Your task to perform on an android device: Search for "lg ultragear" on newegg.com, select the first entry, add it to the cart, then select checkout. Image 0: 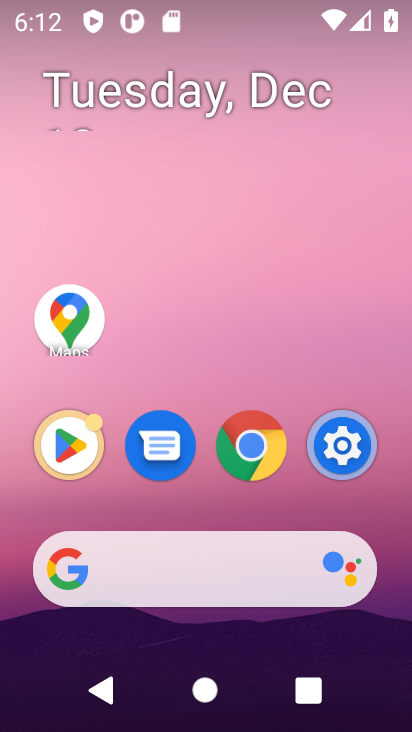
Step 0: click (161, 578)
Your task to perform on an android device: Search for "lg ultragear" on newegg.com, select the first entry, add it to the cart, then select checkout. Image 1: 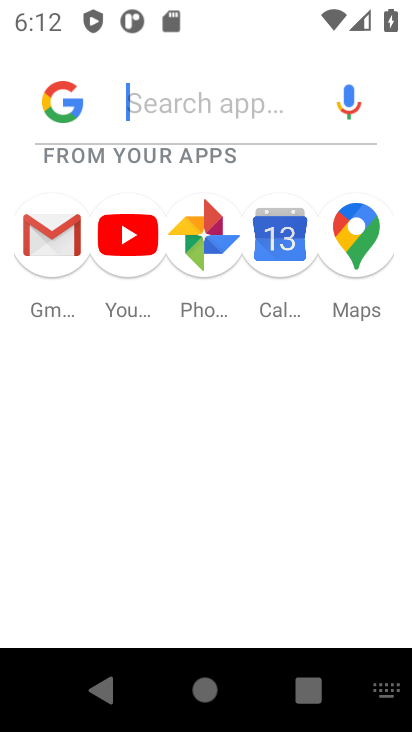
Step 1: type "newegg.com"
Your task to perform on an android device: Search for "lg ultragear" on newegg.com, select the first entry, add it to the cart, then select checkout. Image 2: 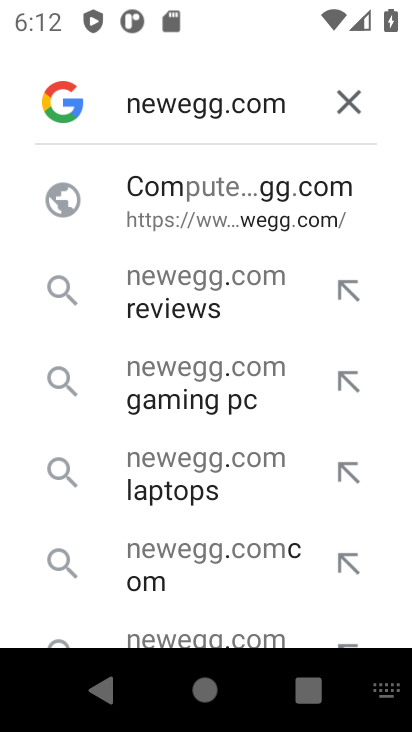
Step 2: click (293, 204)
Your task to perform on an android device: Search for "lg ultragear" on newegg.com, select the first entry, add it to the cart, then select checkout. Image 3: 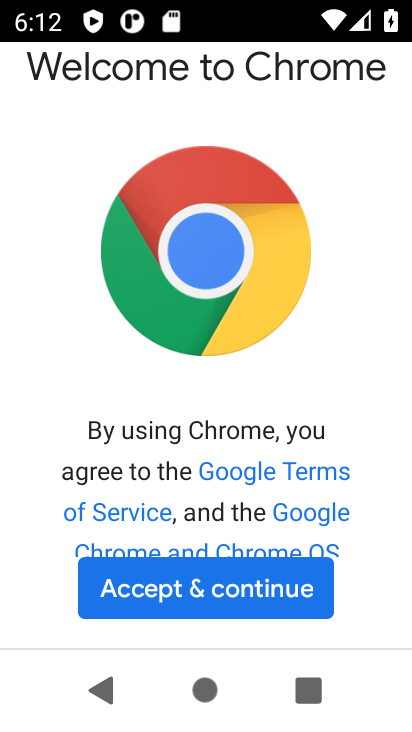
Step 3: click (240, 592)
Your task to perform on an android device: Search for "lg ultragear" on newegg.com, select the first entry, add it to the cart, then select checkout. Image 4: 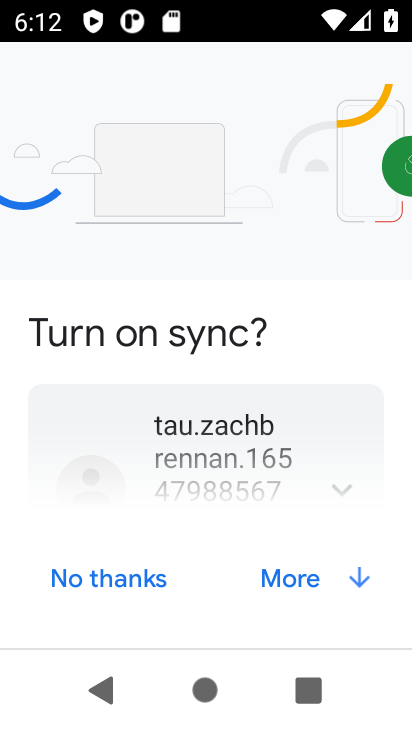
Step 4: click (161, 581)
Your task to perform on an android device: Search for "lg ultragear" on newegg.com, select the first entry, add it to the cart, then select checkout. Image 5: 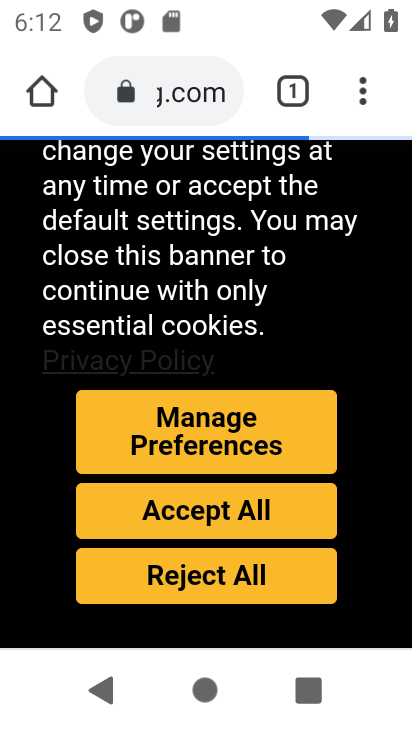
Step 5: click (175, 247)
Your task to perform on an android device: Search for "lg ultragear" on newegg.com, select the first entry, add it to the cart, then select checkout. Image 6: 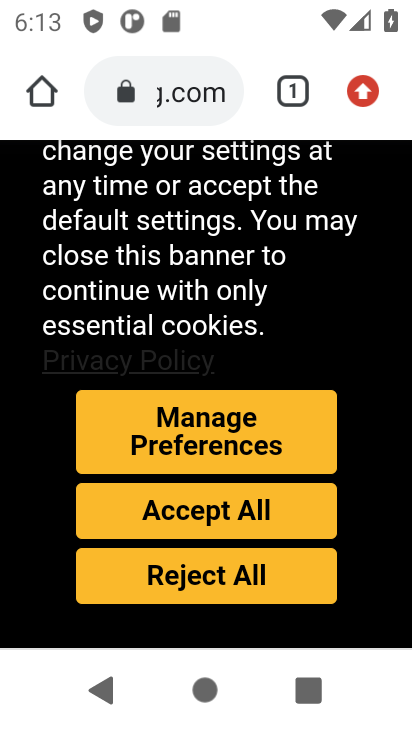
Step 6: click (229, 500)
Your task to perform on an android device: Search for "lg ultragear" on newegg.com, select the first entry, add it to the cart, then select checkout. Image 7: 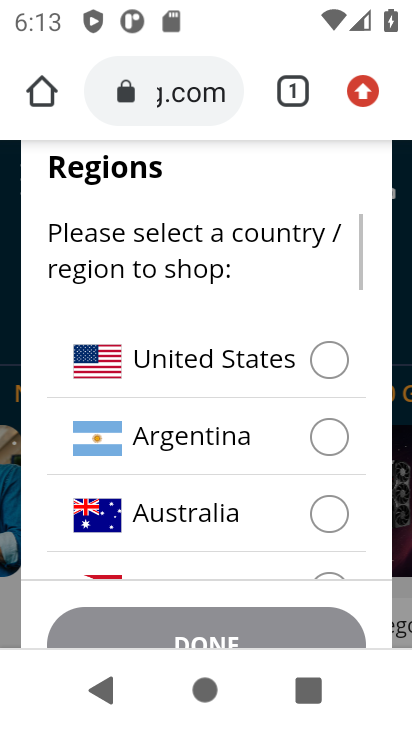
Step 7: click (324, 354)
Your task to perform on an android device: Search for "lg ultragear" on newegg.com, select the first entry, add it to the cart, then select checkout. Image 8: 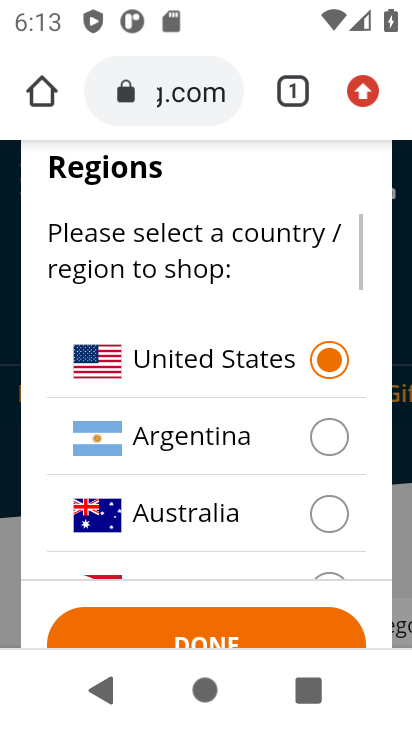
Step 8: click (219, 637)
Your task to perform on an android device: Search for "lg ultragear" on newegg.com, select the first entry, add it to the cart, then select checkout. Image 9: 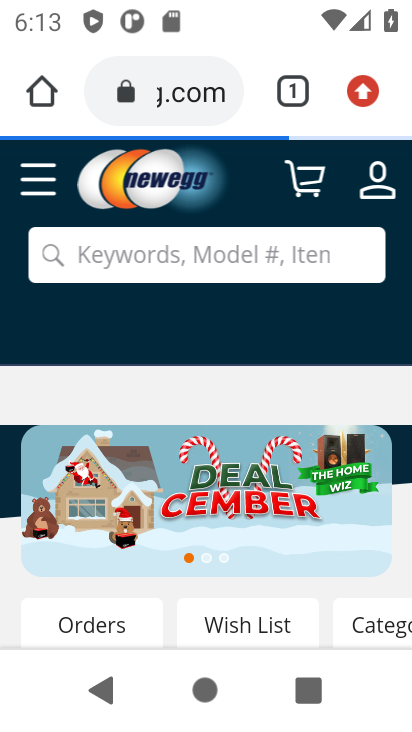
Step 9: click (227, 254)
Your task to perform on an android device: Search for "lg ultragear" on newegg.com, select the first entry, add it to the cart, then select checkout. Image 10: 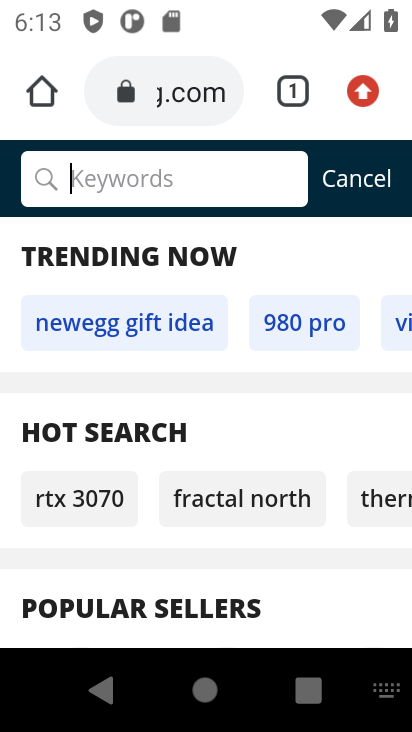
Step 10: click (252, 257)
Your task to perform on an android device: Search for "lg ultragear" on newegg.com, select the first entry, add it to the cart, then select checkout. Image 11: 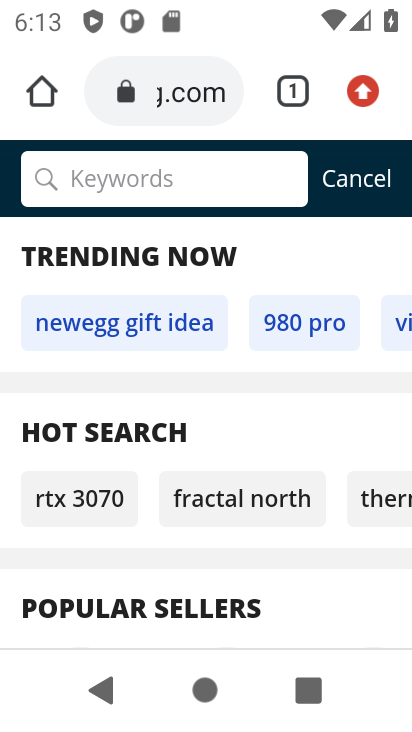
Step 11: type "lg ultragear"
Your task to perform on an android device: Search for "lg ultragear" on newegg.com, select the first entry, add it to the cart, then select checkout. Image 12: 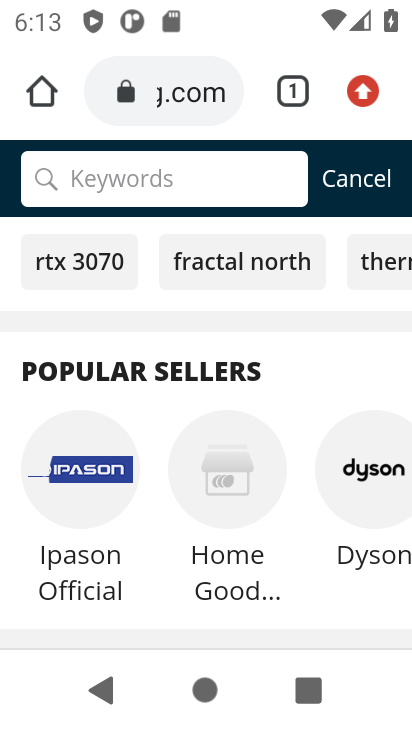
Step 12: click (131, 199)
Your task to perform on an android device: Search for "lg ultragear" on newegg.com, select the first entry, add it to the cart, then select checkout. Image 13: 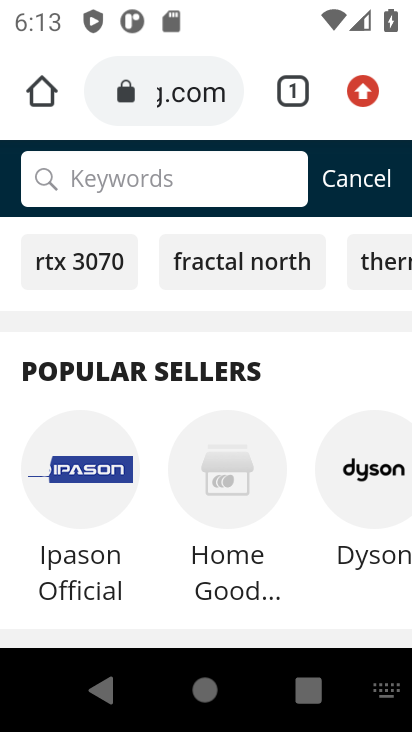
Step 13: type "lg ultragear"
Your task to perform on an android device: Search for "lg ultragear" on newegg.com, select the first entry, add it to the cart, then select checkout. Image 14: 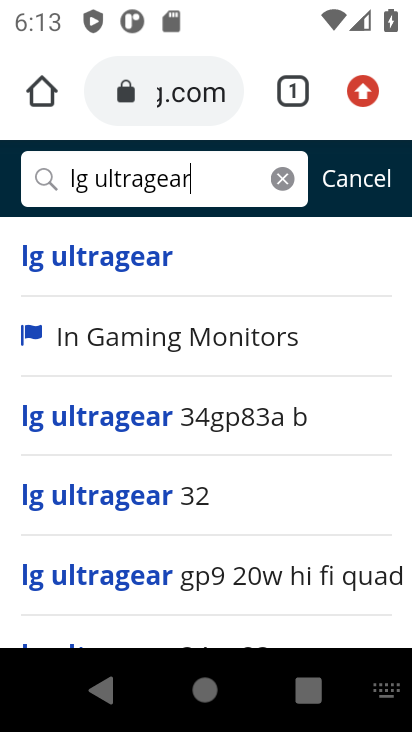
Step 14: click (143, 258)
Your task to perform on an android device: Search for "lg ultragear" on newegg.com, select the first entry, add it to the cart, then select checkout. Image 15: 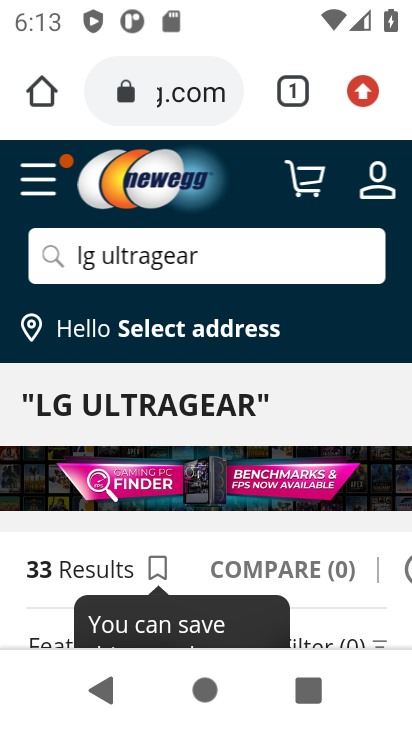
Step 15: drag from (164, 499) to (173, 199)
Your task to perform on an android device: Search for "lg ultragear" on newegg.com, select the first entry, add it to the cart, then select checkout. Image 16: 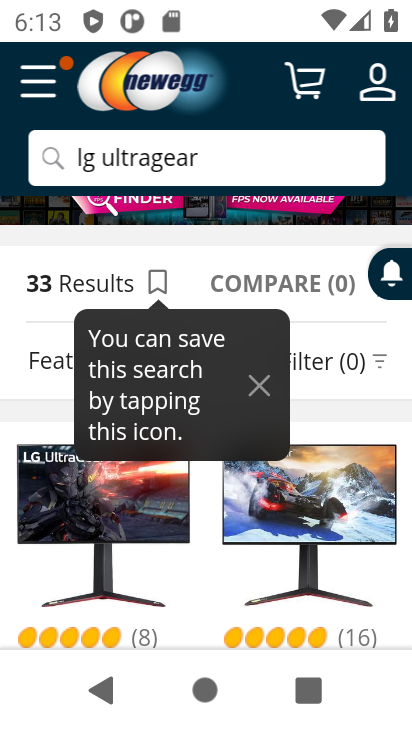
Step 16: click (90, 538)
Your task to perform on an android device: Search for "lg ultragear" on newegg.com, select the first entry, add it to the cart, then select checkout. Image 17: 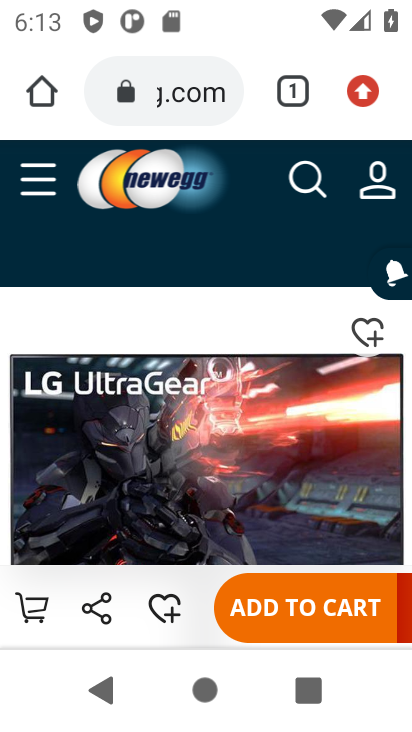
Step 17: click (276, 617)
Your task to perform on an android device: Search for "lg ultragear" on newegg.com, select the first entry, add it to the cart, then select checkout. Image 18: 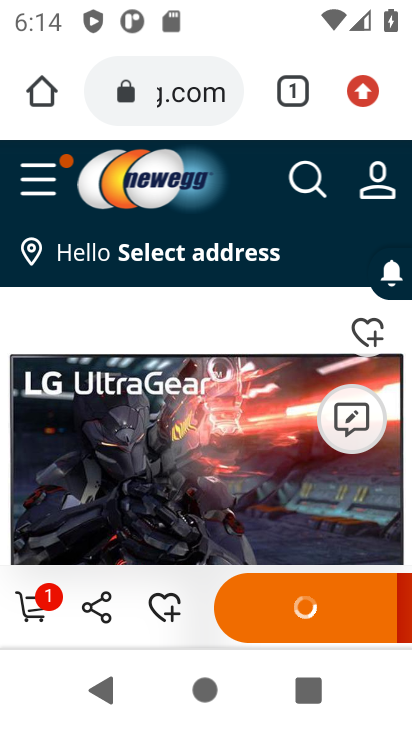
Step 18: click (45, 603)
Your task to perform on an android device: Search for "lg ultragear" on newegg.com, select the first entry, add it to the cart, then select checkout. Image 19: 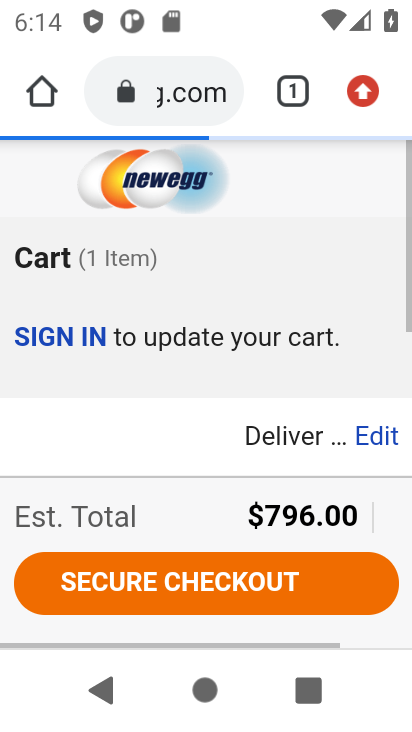
Step 19: click (129, 597)
Your task to perform on an android device: Search for "lg ultragear" on newegg.com, select the first entry, add it to the cart, then select checkout. Image 20: 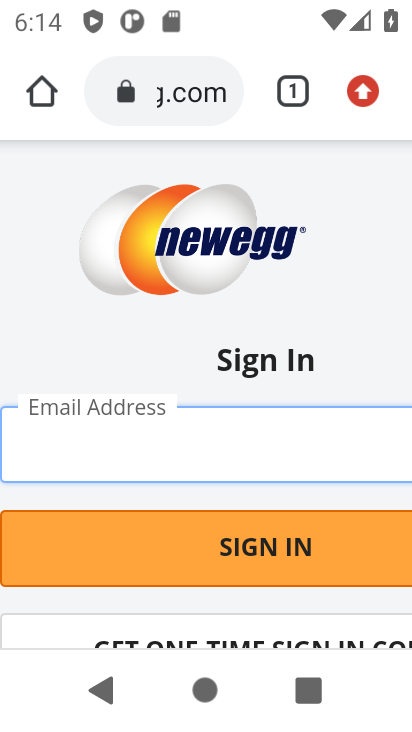
Step 20: task complete